Your task to perform on an android device: Open calendar and show me the first week of next month Image 0: 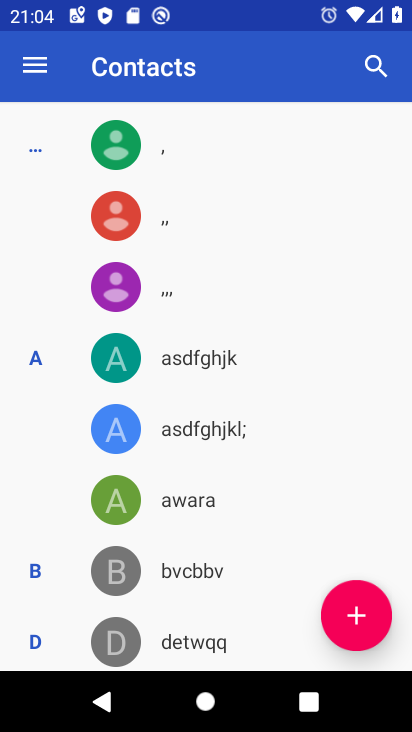
Step 0: press home button
Your task to perform on an android device: Open calendar and show me the first week of next month Image 1: 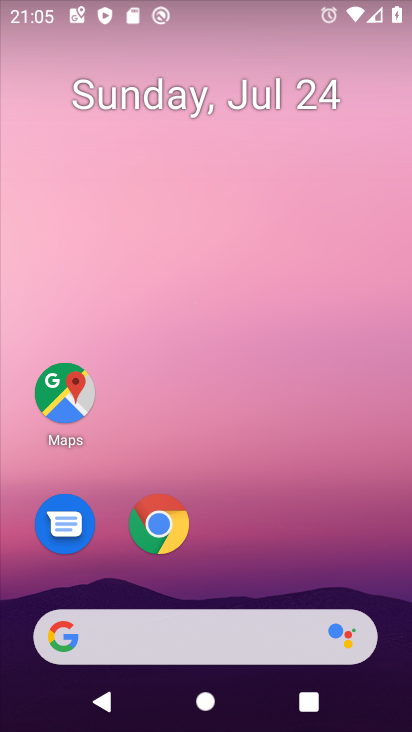
Step 1: drag from (273, 548) to (273, 7)
Your task to perform on an android device: Open calendar and show me the first week of next month Image 2: 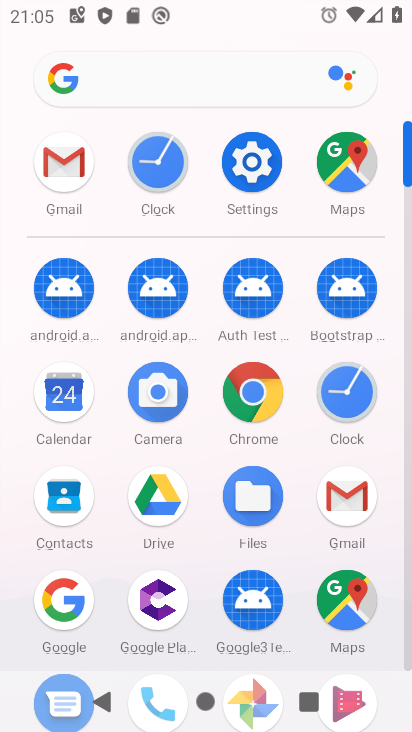
Step 2: click (64, 391)
Your task to perform on an android device: Open calendar and show me the first week of next month Image 3: 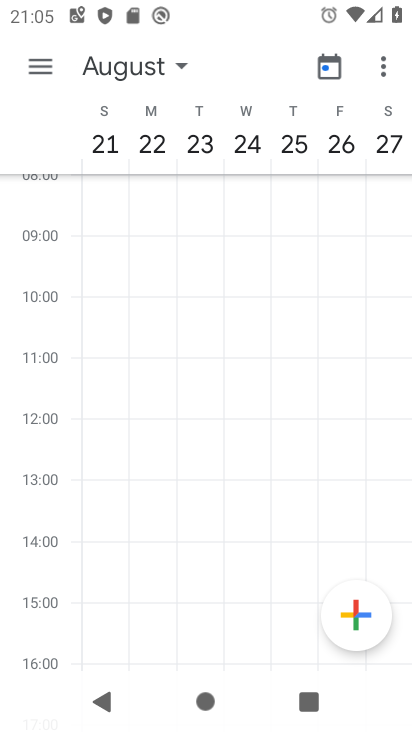
Step 3: task complete